Your task to perform on an android device: Open eBay Image 0: 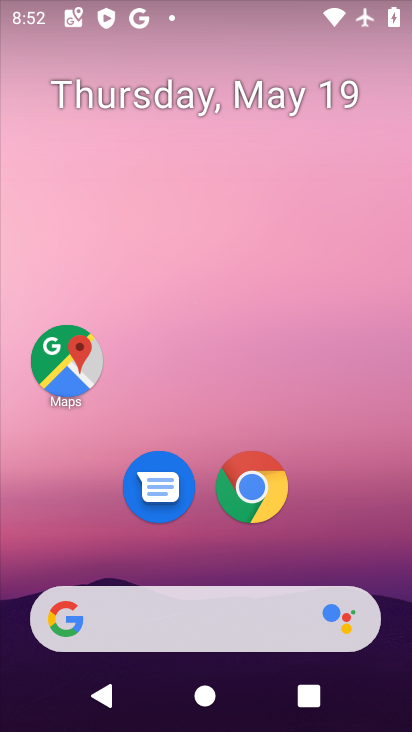
Step 0: click (267, 513)
Your task to perform on an android device: Open eBay Image 1: 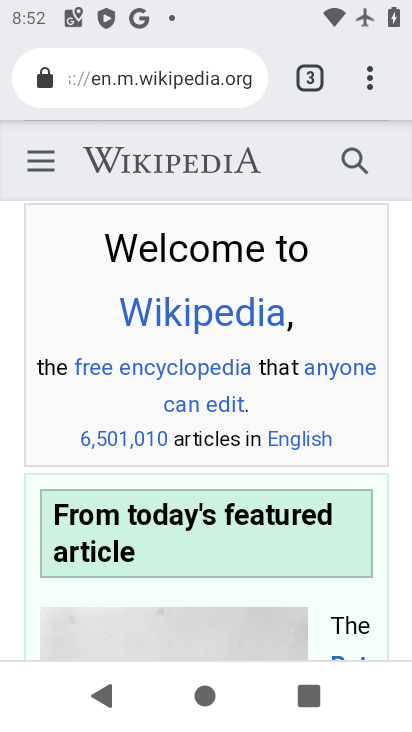
Step 1: click (308, 81)
Your task to perform on an android device: Open eBay Image 2: 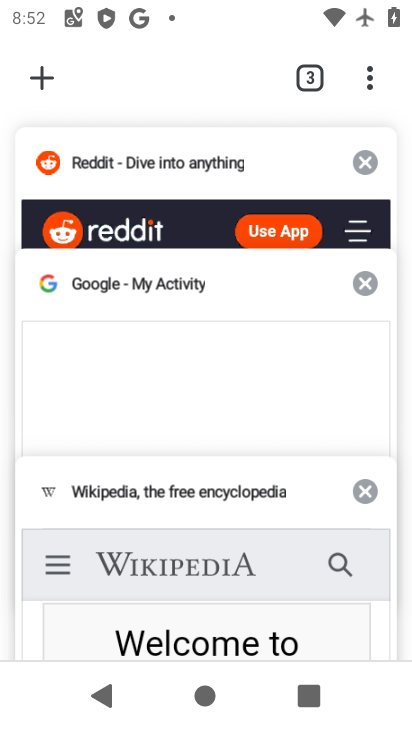
Step 2: click (51, 68)
Your task to perform on an android device: Open eBay Image 3: 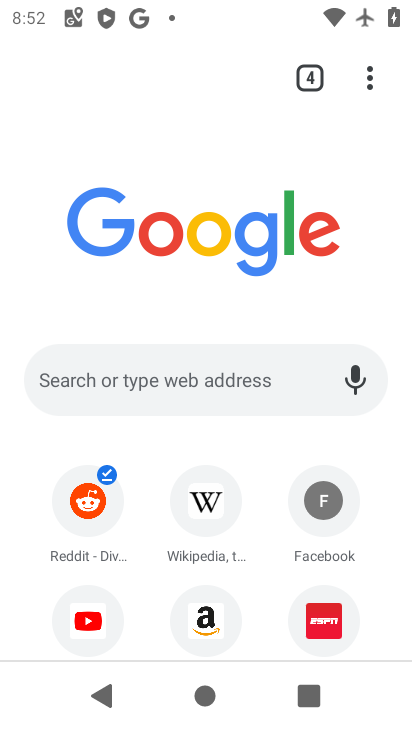
Step 3: click (206, 382)
Your task to perform on an android device: Open eBay Image 4: 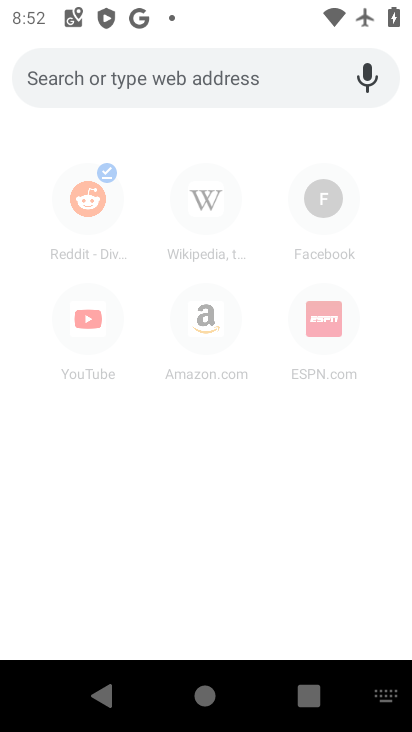
Step 4: type "ebay"
Your task to perform on an android device: Open eBay Image 5: 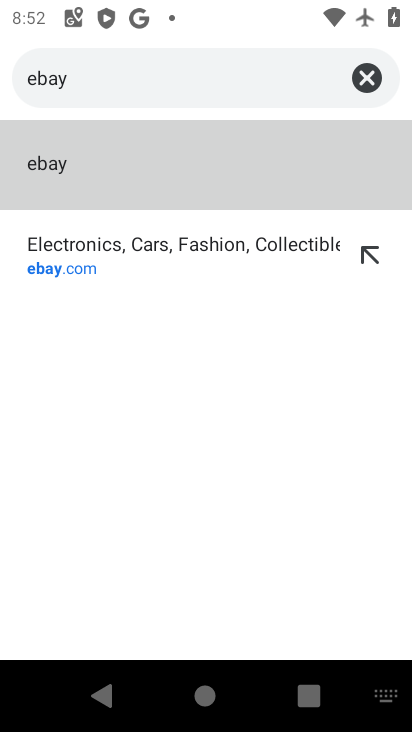
Step 5: click (55, 230)
Your task to perform on an android device: Open eBay Image 6: 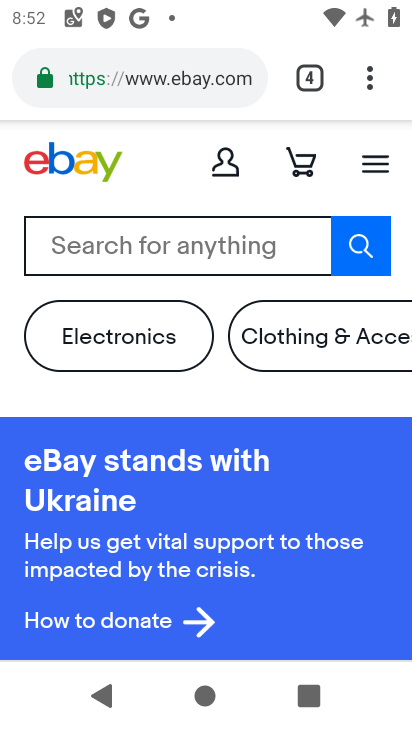
Step 6: task complete